Your task to perform on an android device: Open Yahoo.com Image 0: 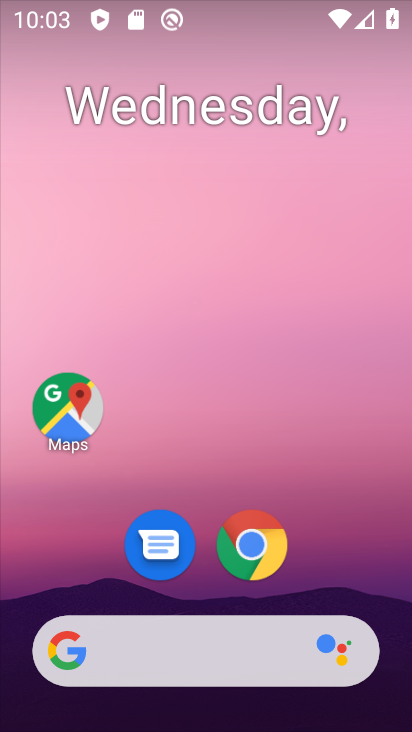
Step 0: click (239, 548)
Your task to perform on an android device: Open Yahoo.com Image 1: 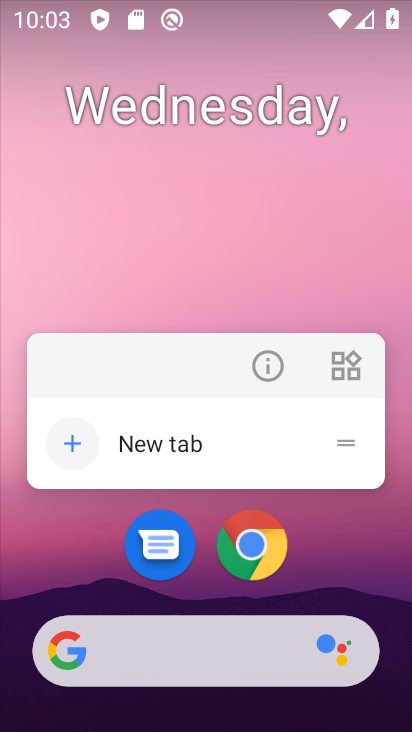
Step 1: click (239, 548)
Your task to perform on an android device: Open Yahoo.com Image 2: 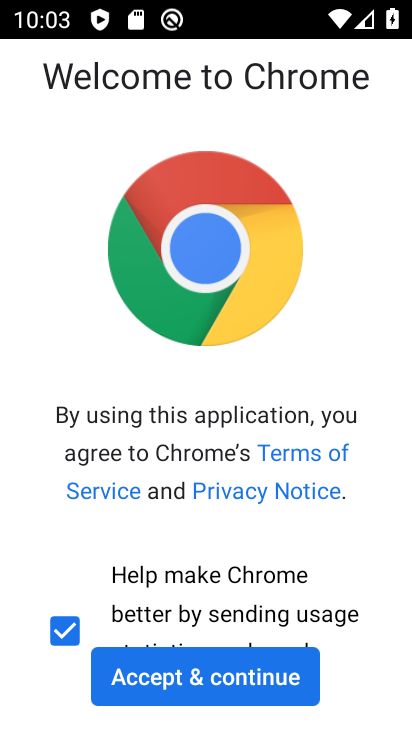
Step 2: click (204, 688)
Your task to perform on an android device: Open Yahoo.com Image 3: 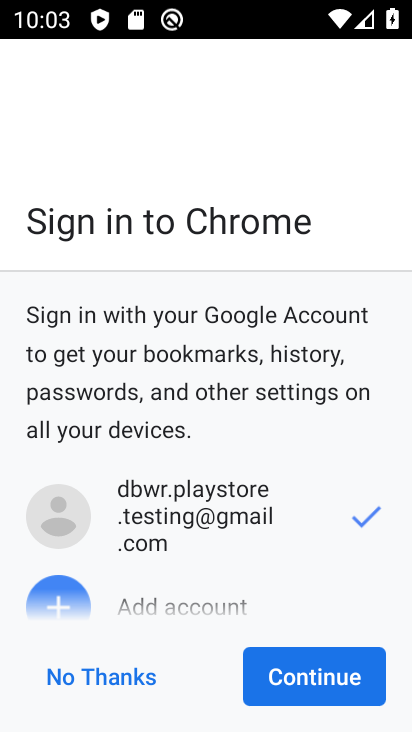
Step 3: click (298, 662)
Your task to perform on an android device: Open Yahoo.com Image 4: 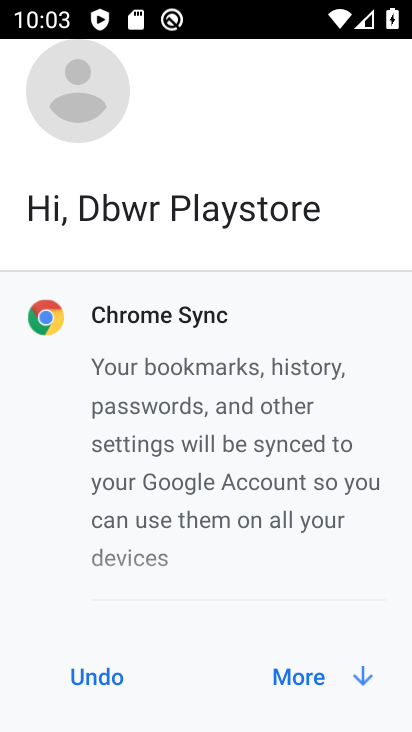
Step 4: click (314, 674)
Your task to perform on an android device: Open Yahoo.com Image 5: 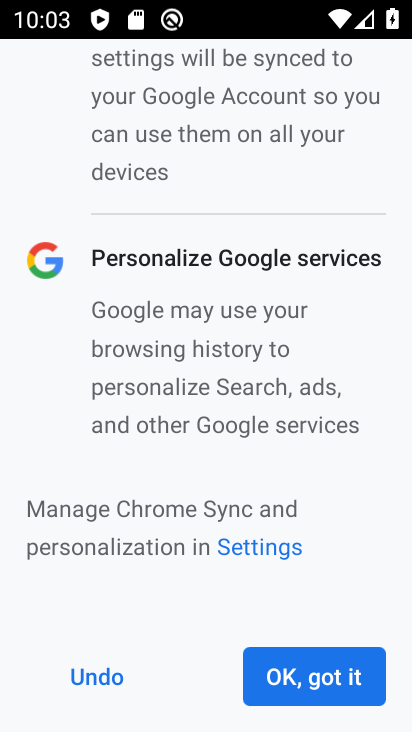
Step 5: click (316, 673)
Your task to perform on an android device: Open Yahoo.com Image 6: 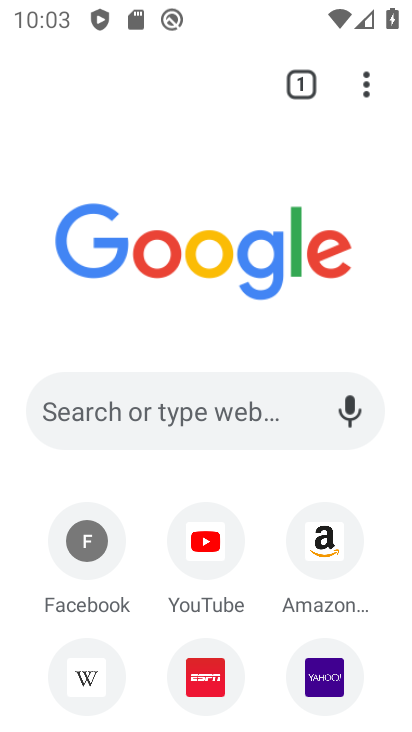
Step 6: click (323, 685)
Your task to perform on an android device: Open Yahoo.com Image 7: 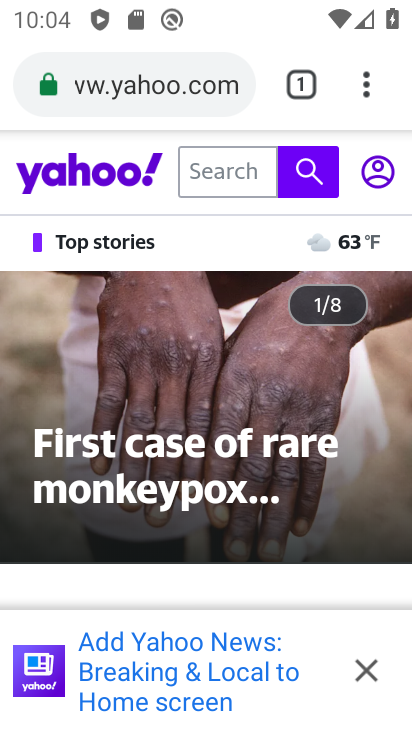
Step 7: task complete